Your task to perform on an android device: open a new tab in the chrome app Image 0: 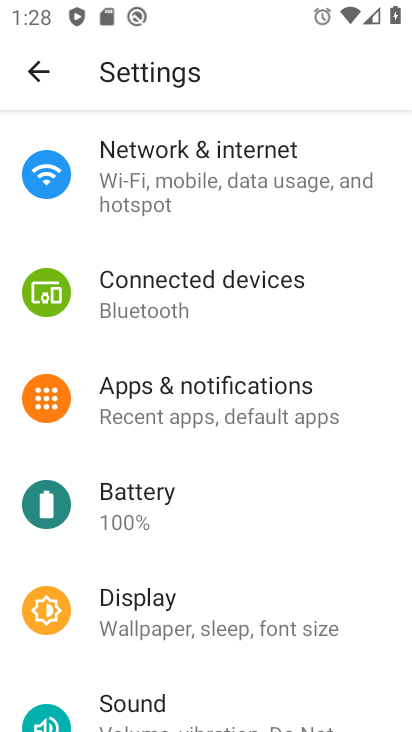
Step 0: press home button
Your task to perform on an android device: open a new tab in the chrome app Image 1: 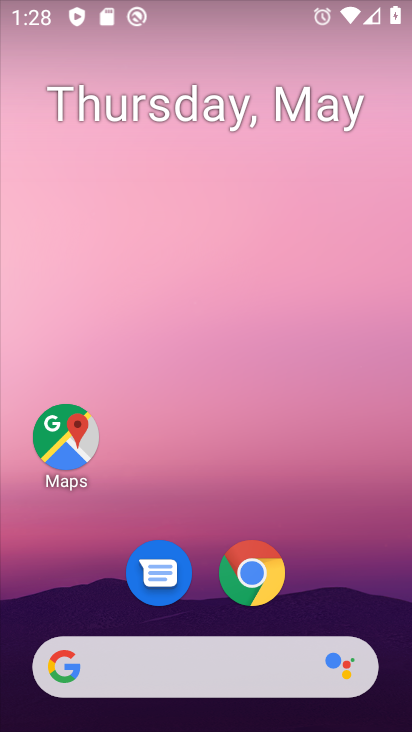
Step 1: click (249, 576)
Your task to perform on an android device: open a new tab in the chrome app Image 2: 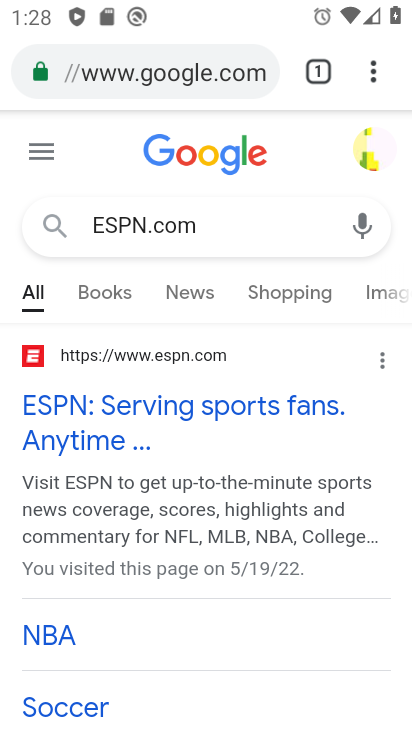
Step 2: click (372, 73)
Your task to perform on an android device: open a new tab in the chrome app Image 3: 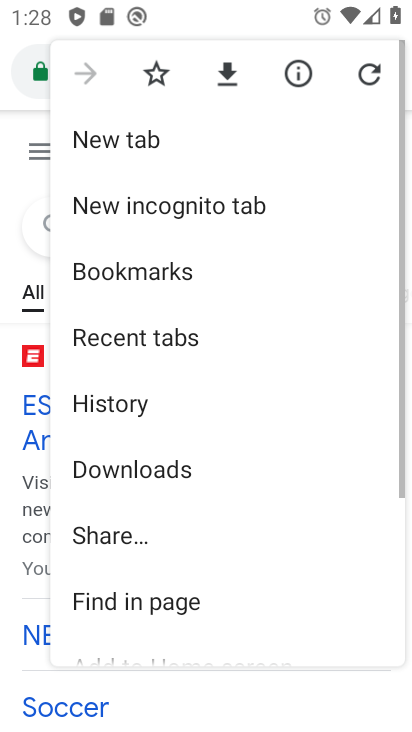
Step 3: click (138, 136)
Your task to perform on an android device: open a new tab in the chrome app Image 4: 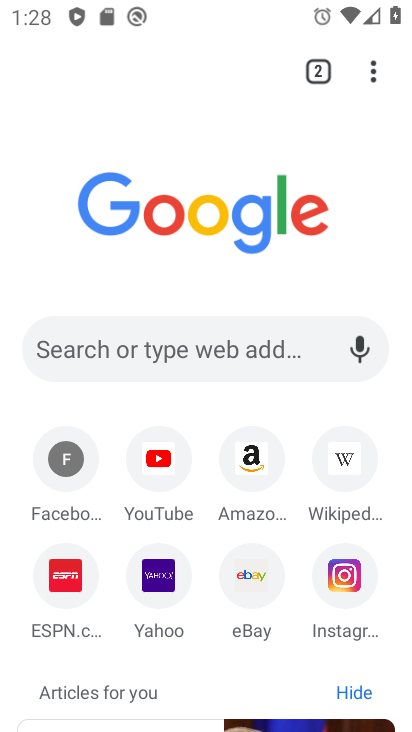
Step 4: task complete